Your task to perform on an android device: set the stopwatch Image 0: 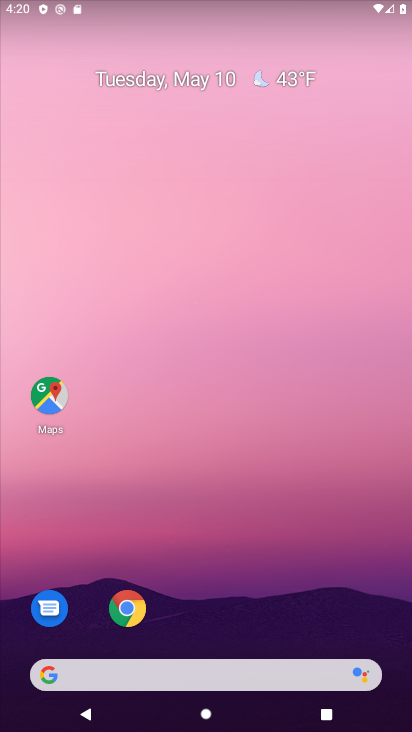
Step 0: drag from (288, 626) to (121, 87)
Your task to perform on an android device: set the stopwatch Image 1: 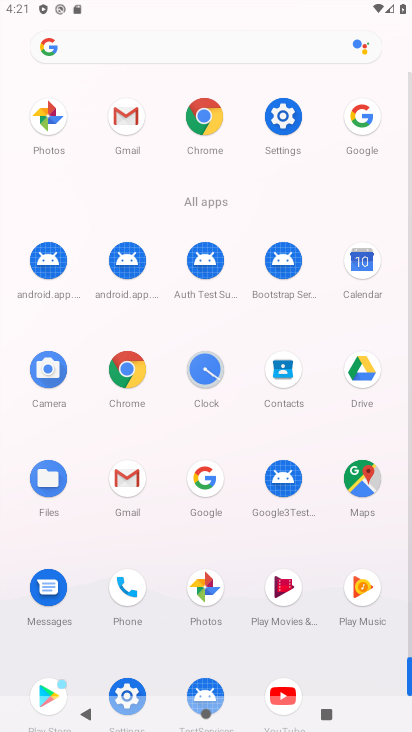
Step 1: click (285, 108)
Your task to perform on an android device: set the stopwatch Image 2: 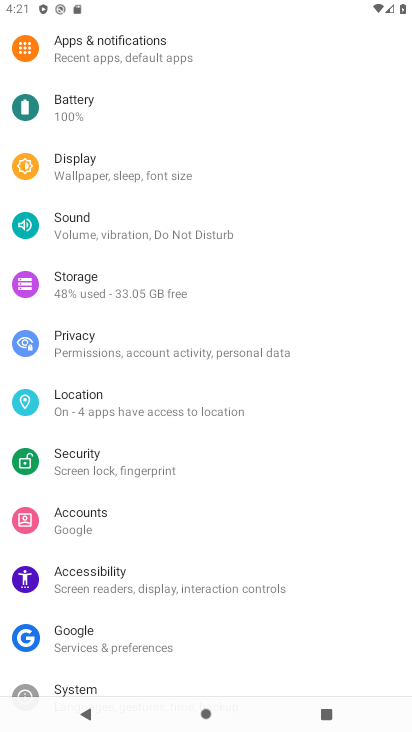
Step 2: press home button
Your task to perform on an android device: set the stopwatch Image 3: 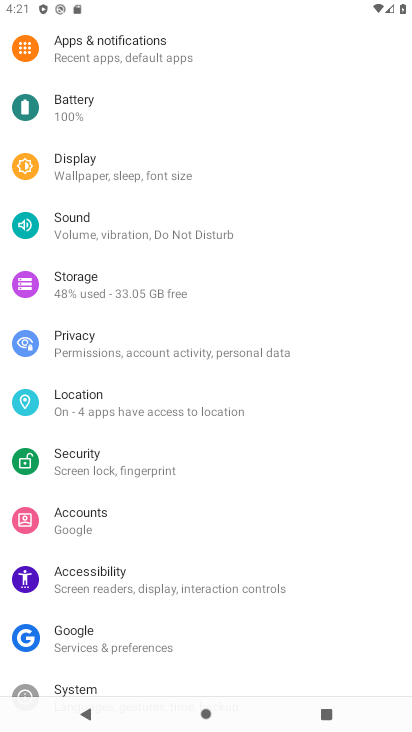
Step 3: press home button
Your task to perform on an android device: set the stopwatch Image 4: 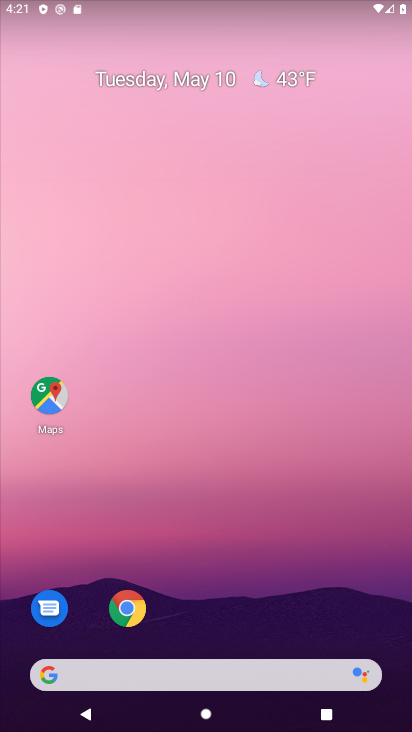
Step 4: press home button
Your task to perform on an android device: set the stopwatch Image 5: 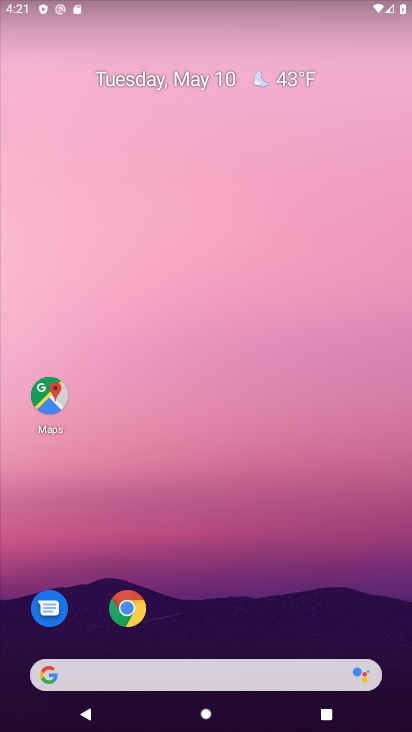
Step 5: drag from (240, 600) to (184, 182)
Your task to perform on an android device: set the stopwatch Image 6: 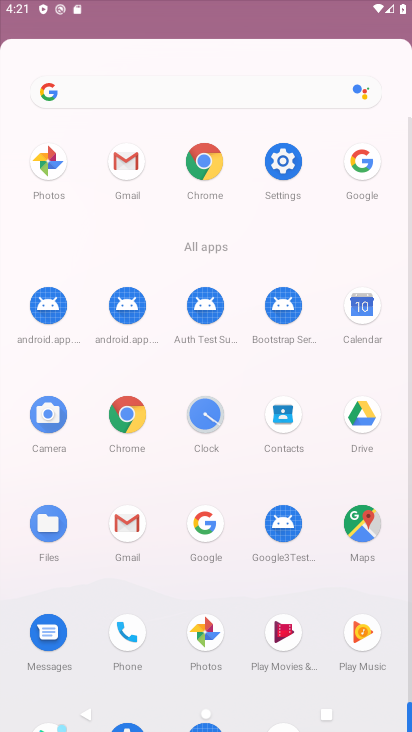
Step 6: drag from (232, 506) to (103, 97)
Your task to perform on an android device: set the stopwatch Image 7: 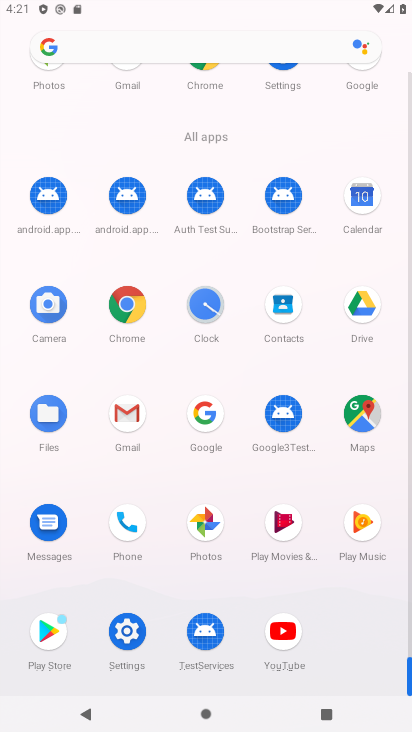
Step 7: click (207, 309)
Your task to perform on an android device: set the stopwatch Image 8: 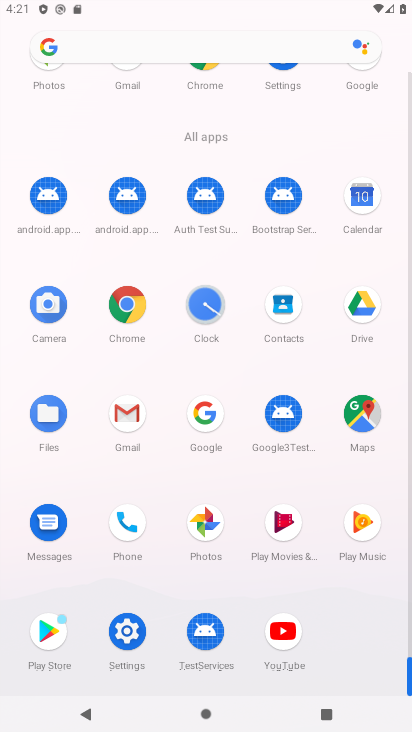
Step 8: click (208, 306)
Your task to perform on an android device: set the stopwatch Image 9: 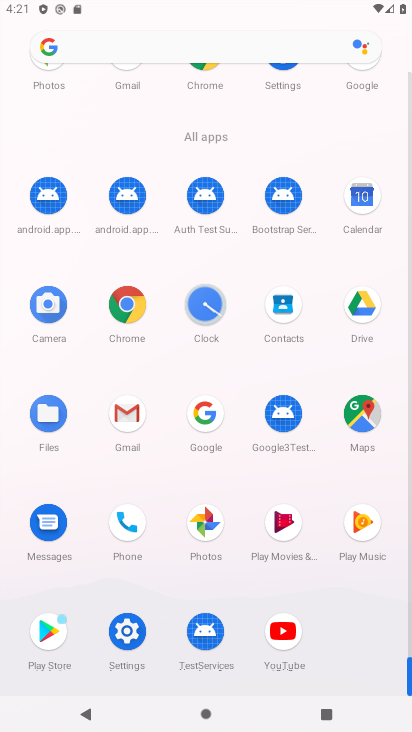
Step 9: click (211, 305)
Your task to perform on an android device: set the stopwatch Image 10: 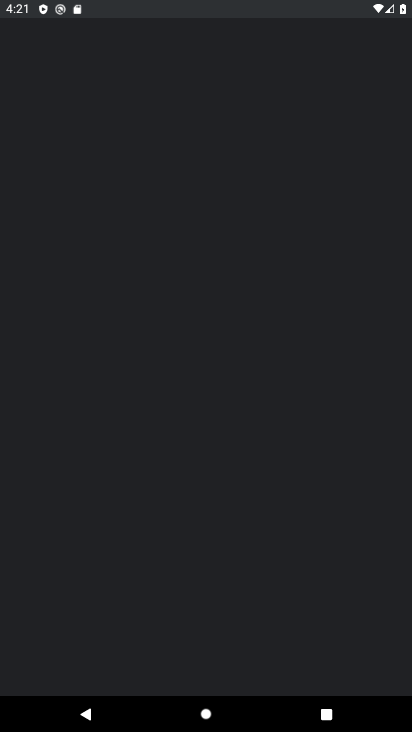
Step 10: click (211, 304)
Your task to perform on an android device: set the stopwatch Image 11: 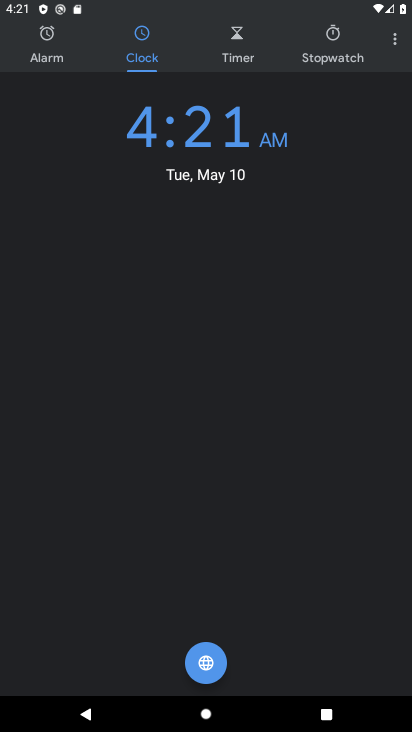
Step 11: click (335, 55)
Your task to perform on an android device: set the stopwatch Image 12: 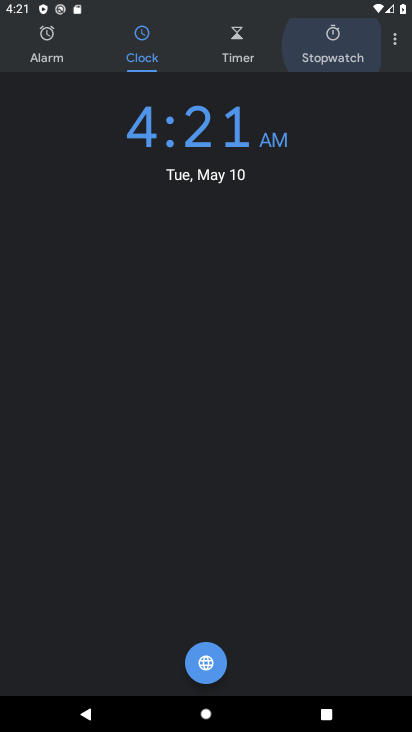
Step 12: click (335, 55)
Your task to perform on an android device: set the stopwatch Image 13: 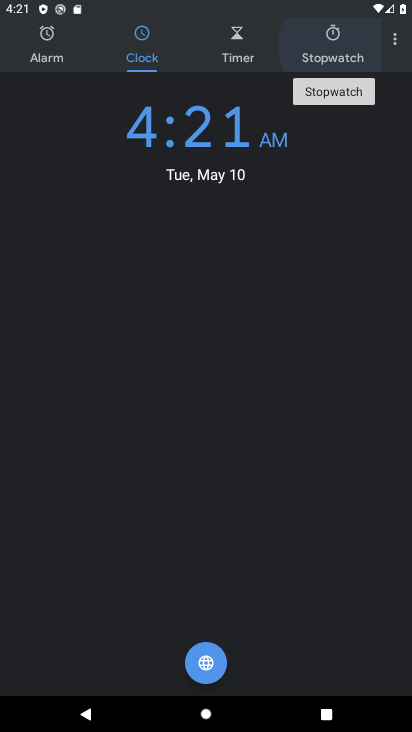
Step 13: click (335, 55)
Your task to perform on an android device: set the stopwatch Image 14: 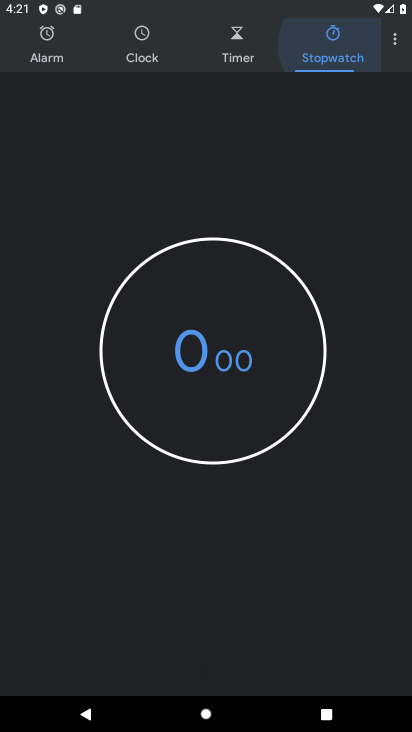
Step 14: click (335, 55)
Your task to perform on an android device: set the stopwatch Image 15: 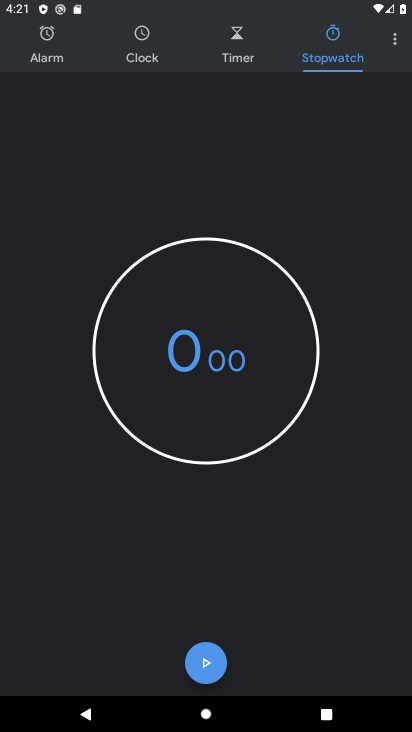
Step 15: click (211, 664)
Your task to perform on an android device: set the stopwatch Image 16: 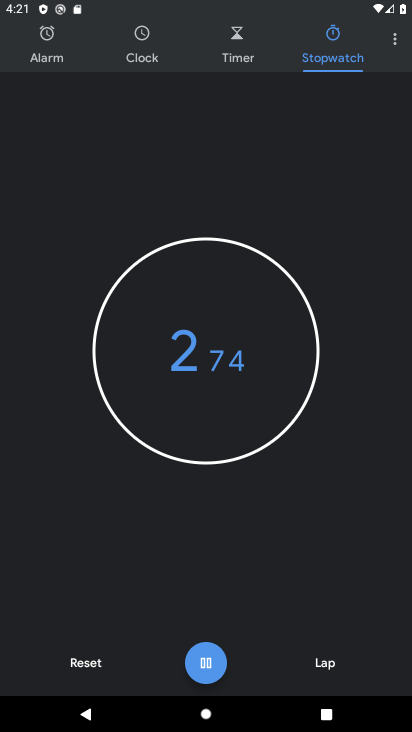
Step 16: click (206, 661)
Your task to perform on an android device: set the stopwatch Image 17: 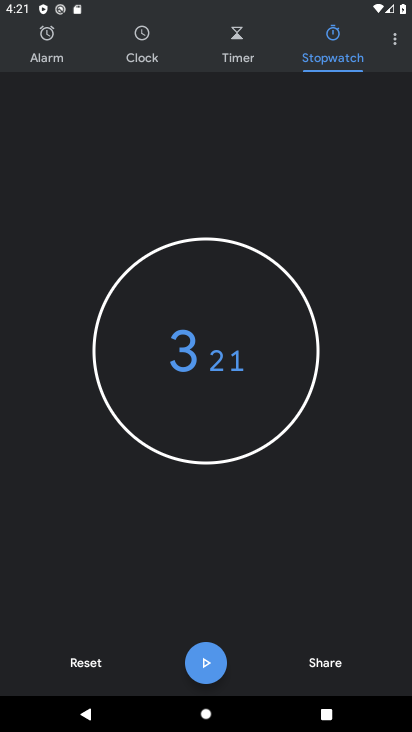
Step 17: task complete